Your task to perform on an android device: Open Yahoo.com Image 0: 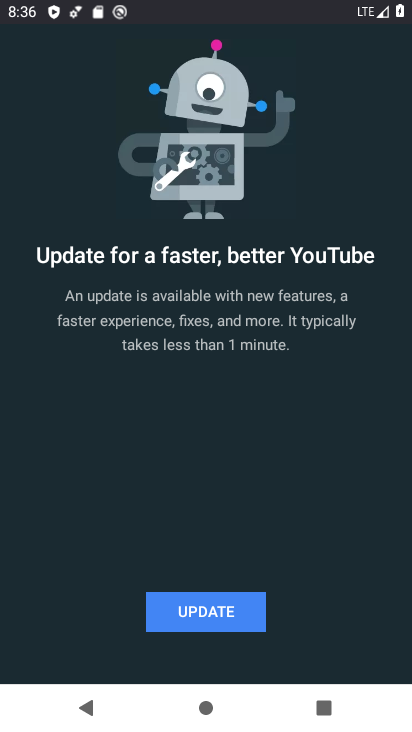
Step 0: press back button
Your task to perform on an android device: Open Yahoo.com Image 1: 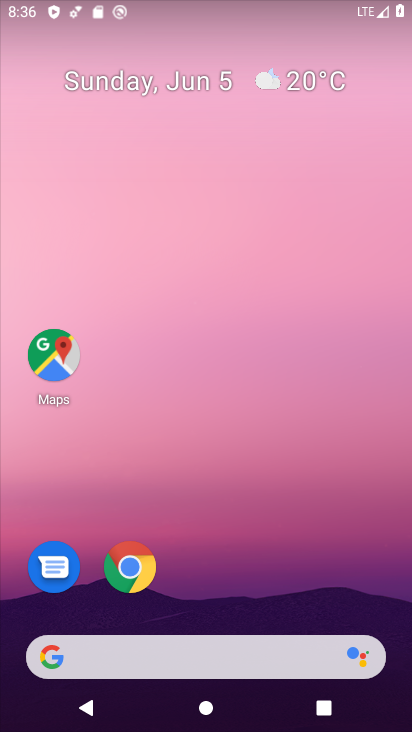
Step 1: click (132, 566)
Your task to perform on an android device: Open Yahoo.com Image 2: 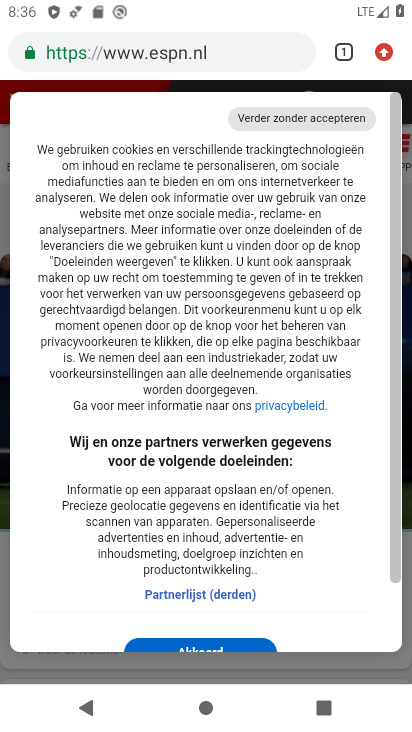
Step 2: click (267, 47)
Your task to perform on an android device: Open Yahoo.com Image 3: 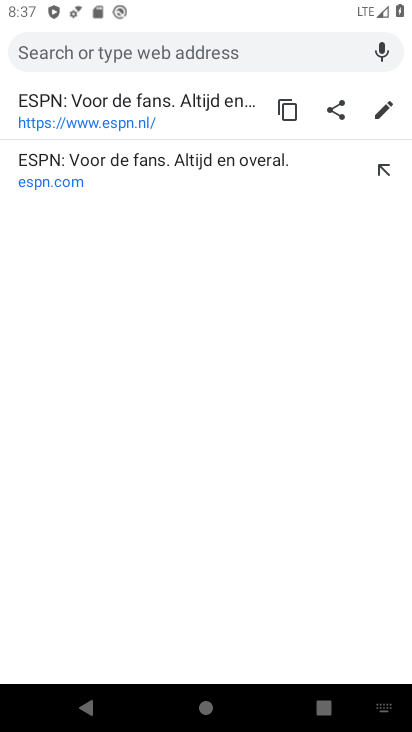
Step 3: type "Yahoo.com"
Your task to perform on an android device: Open Yahoo.com Image 4: 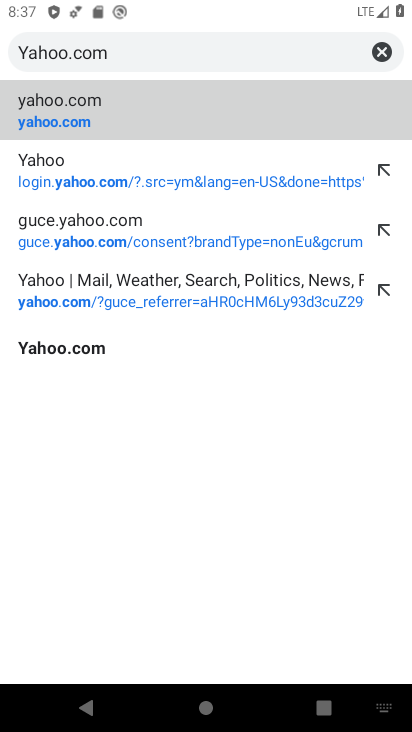
Step 4: click (58, 343)
Your task to perform on an android device: Open Yahoo.com Image 5: 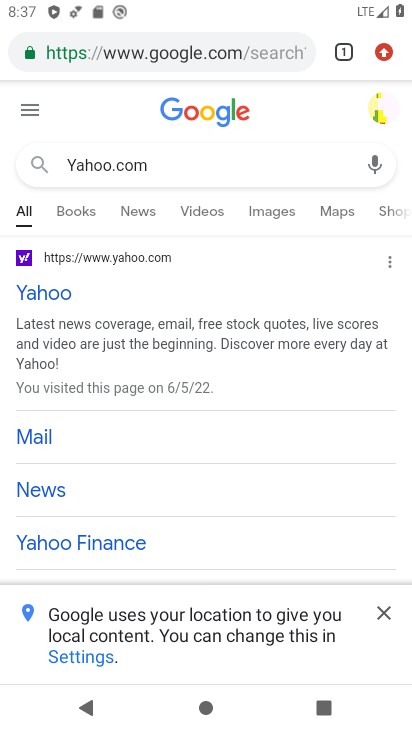
Step 5: click (62, 299)
Your task to perform on an android device: Open Yahoo.com Image 6: 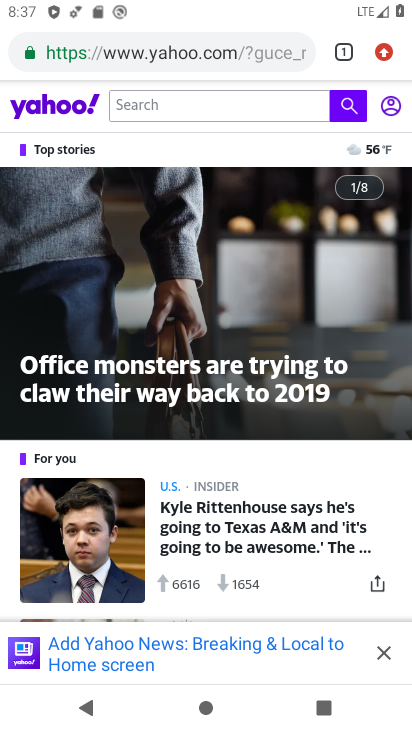
Step 6: task complete